Your task to perform on an android device: Open Amazon Image 0: 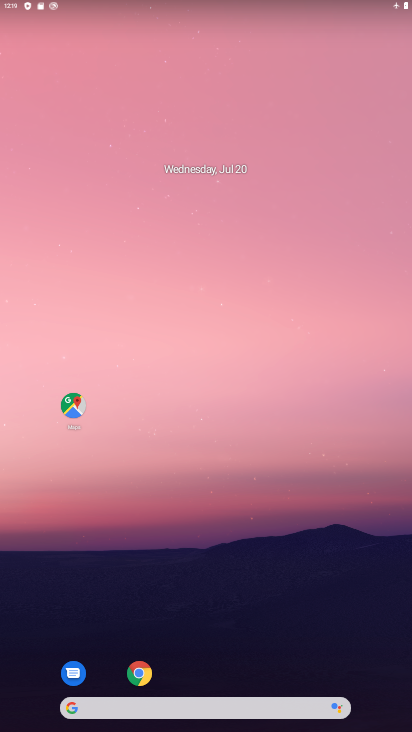
Step 0: drag from (303, 653) to (254, 107)
Your task to perform on an android device: Open Amazon Image 1: 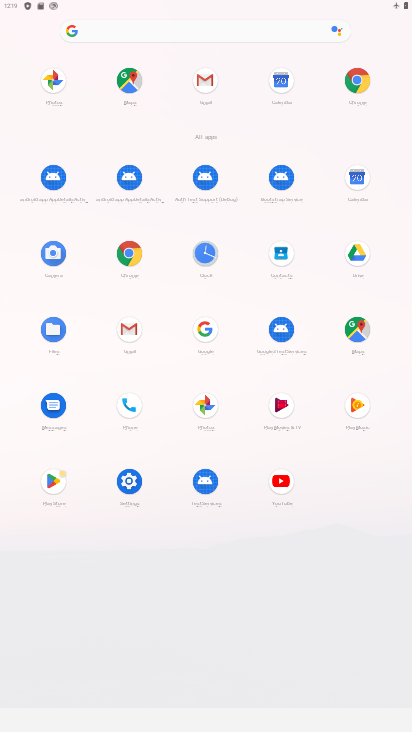
Step 1: click (359, 81)
Your task to perform on an android device: Open Amazon Image 2: 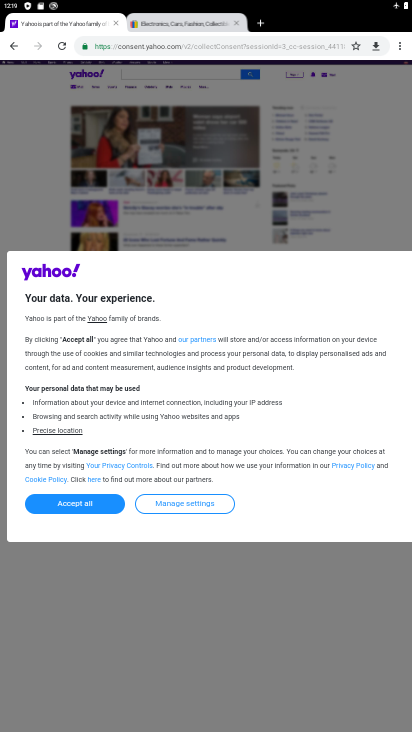
Step 2: click (263, 23)
Your task to perform on an android device: Open Amazon Image 3: 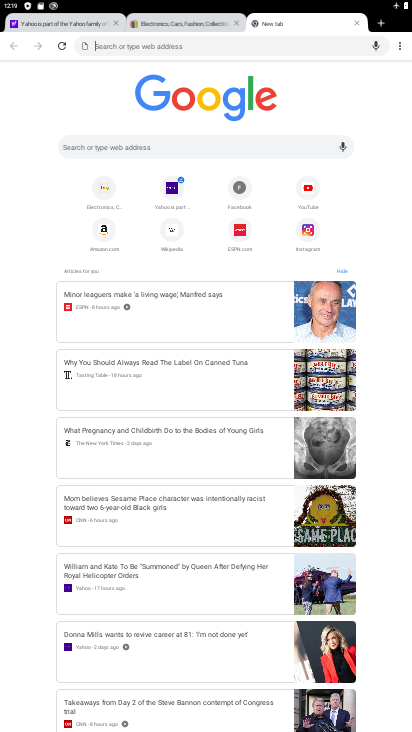
Step 3: click (108, 239)
Your task to perform on an android device: Open Amazon Image 4: 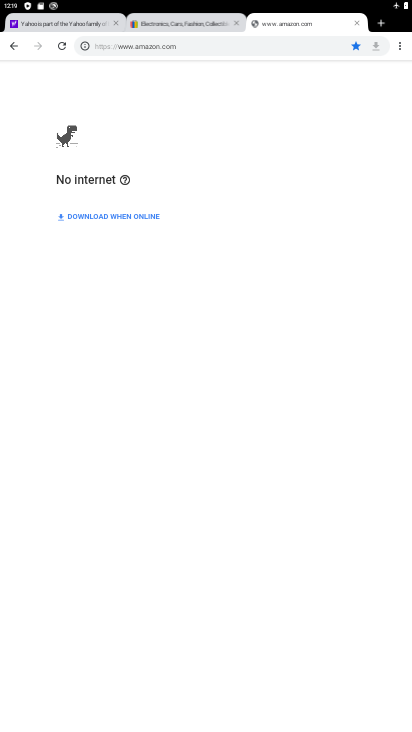
Step 4: task complete